Your task to perform on an android device: install app "Microsoft Authenticator" Image 0: 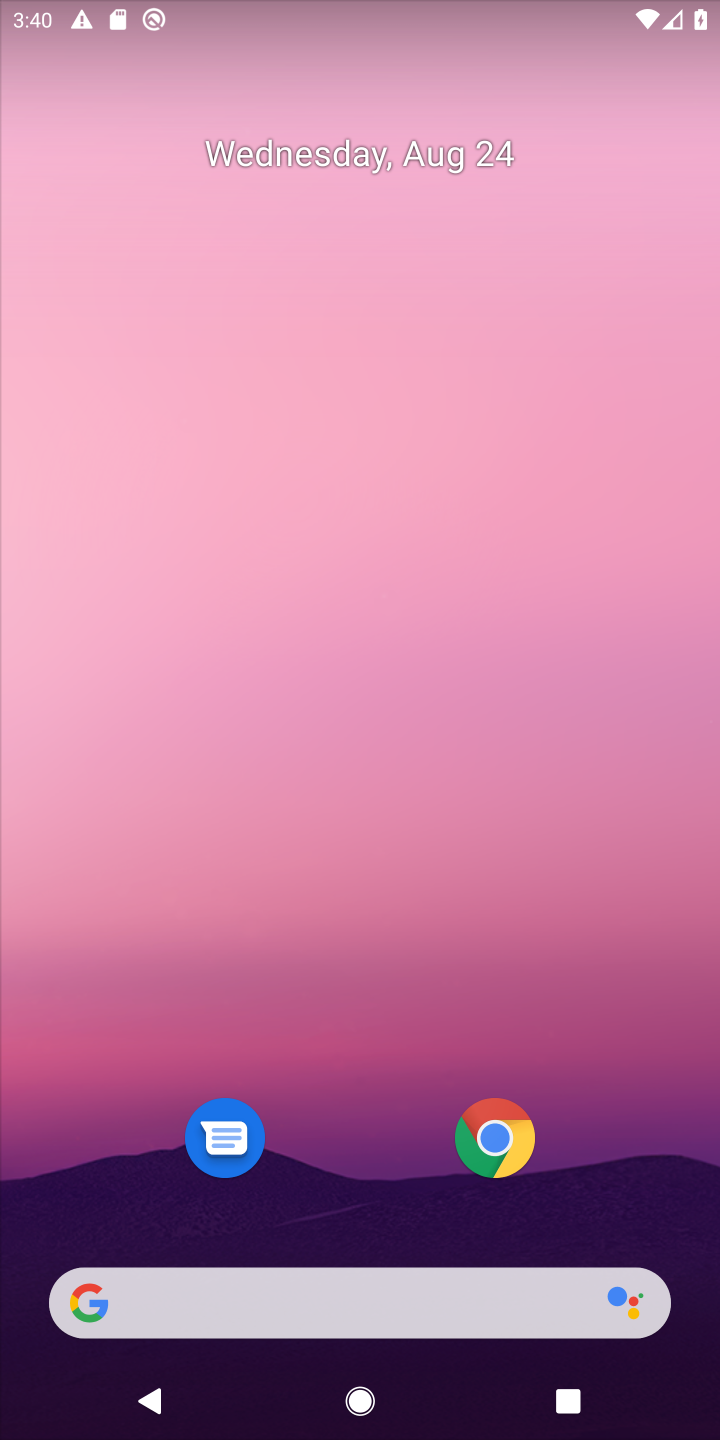
Step 0: drag from (353, 1247) to (347, 202)
Your task to perform on an android device: install app "Microsoft Authenticator" Image 1: 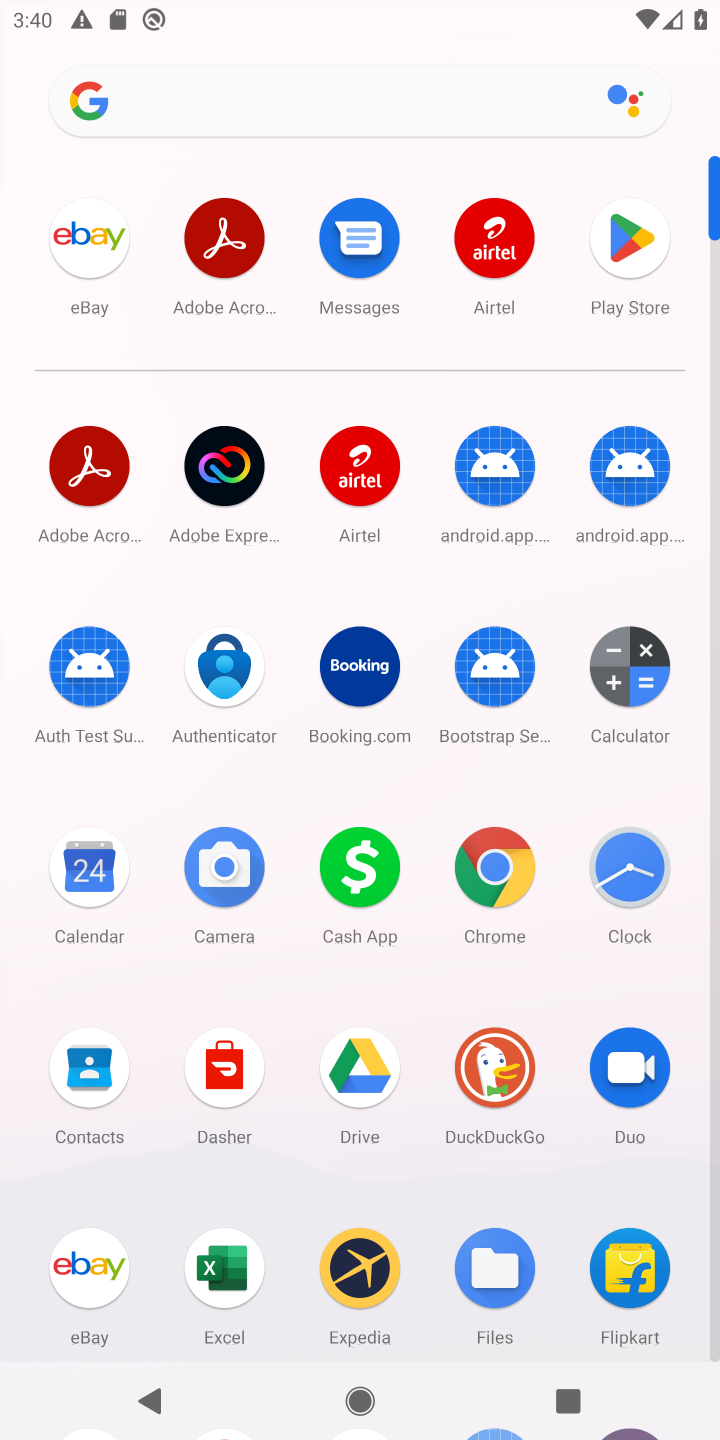
Step 1: click (631, 238)
Your task to perform on an android device: install app "Microsoft Authenticator" Image 2: 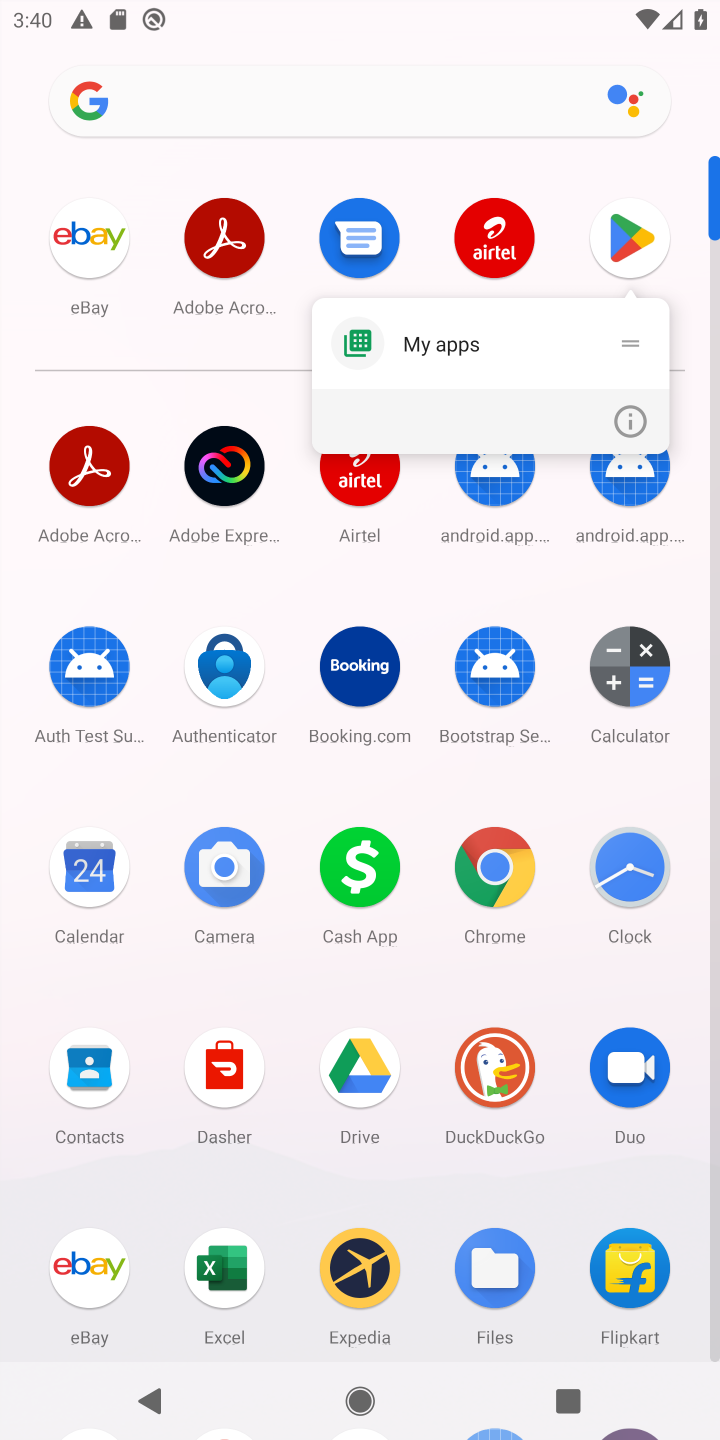
Step 2: click (631, 238)
Your task to perform on an android device: install app "Microsoft Authenticator" Image 3: 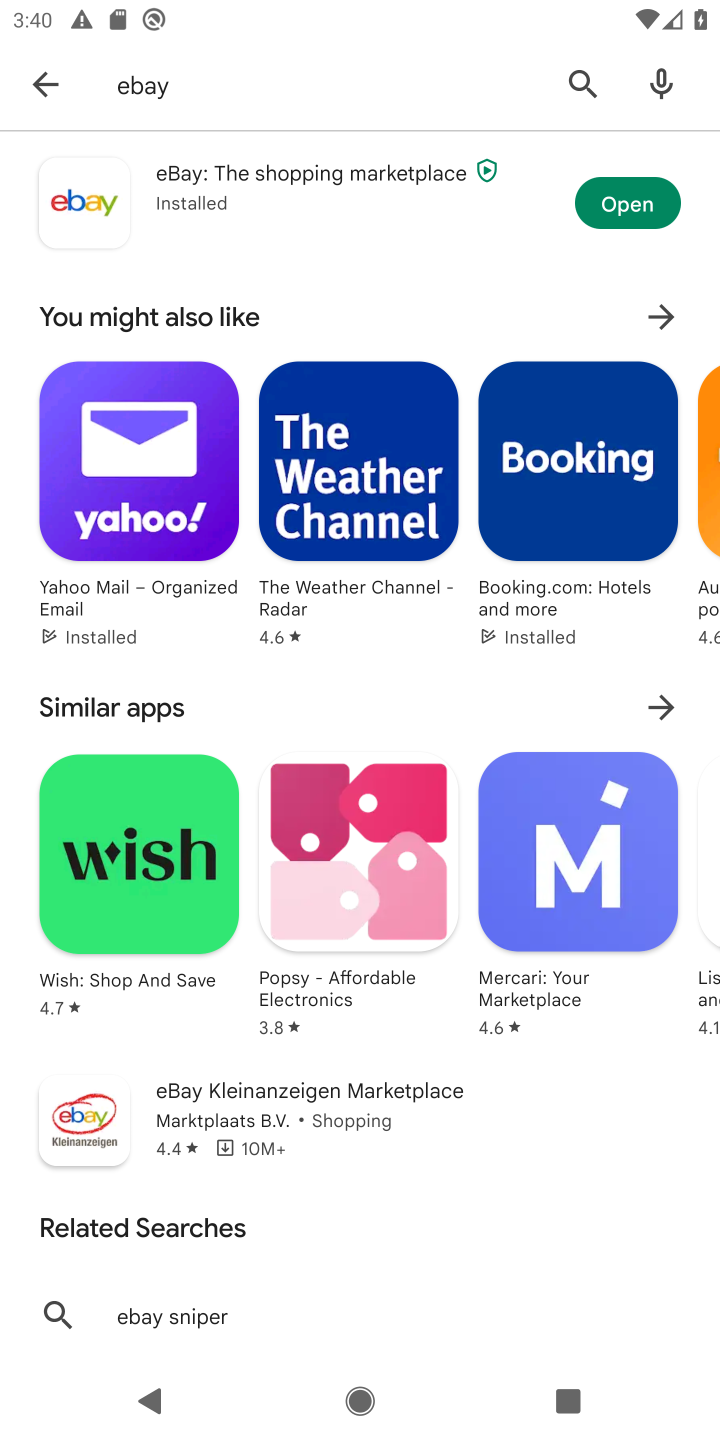
Step 3: click (577, 82)
Your task to perform on an android device: install app "Microsoft Authenticator" Image 4: 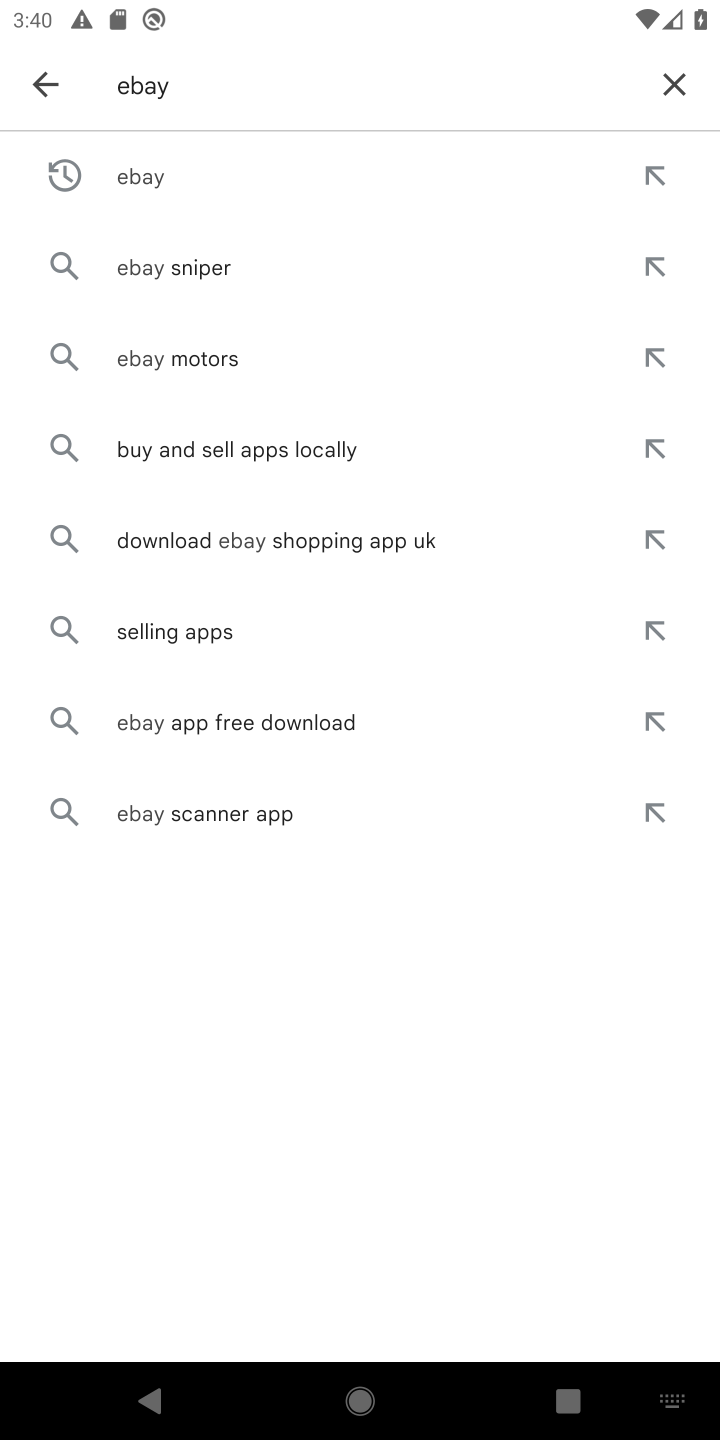
Step 4: click (673, 81)
Your task to perform on an android device: install app "Microsoft Authenticator" Image 5: 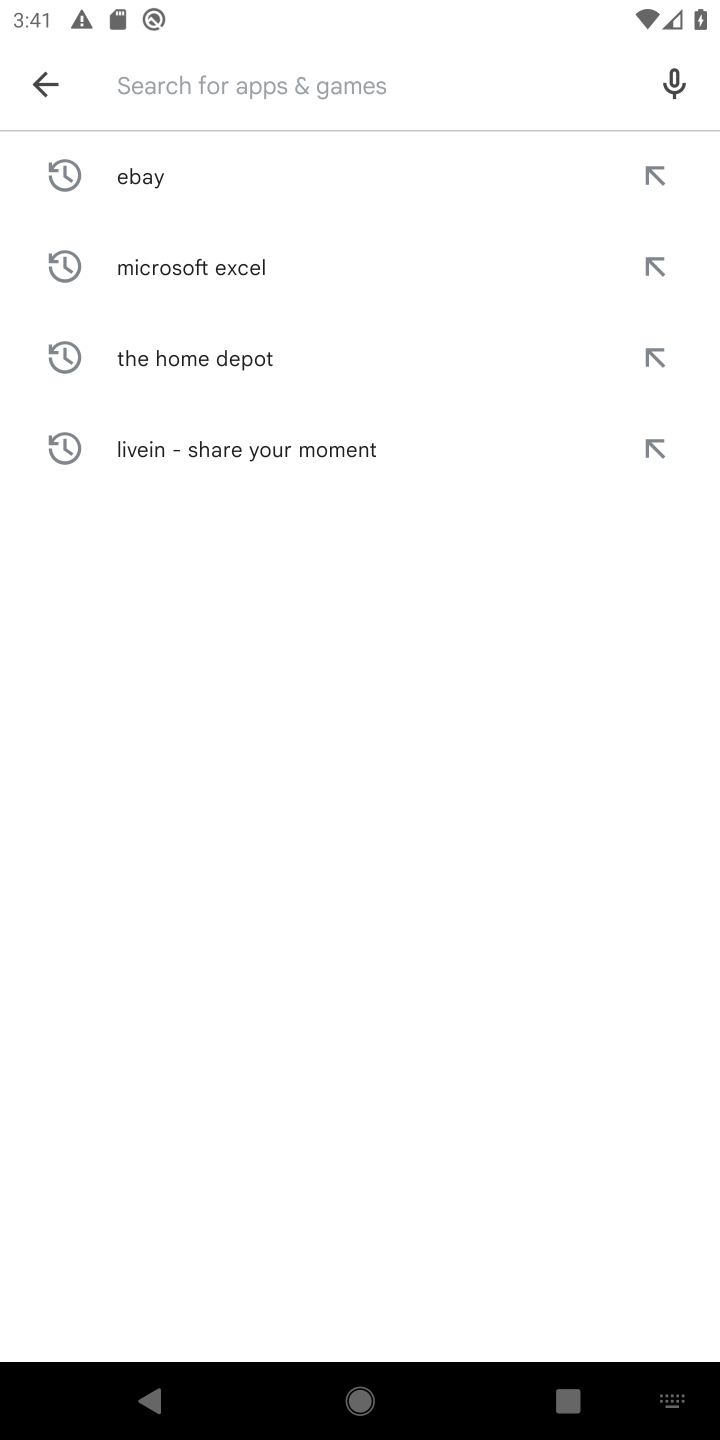
Step 5: type "Microsoft Authenticato"
Your task to perform on an android device: install app "Microsoft Authenticator" Image 6: 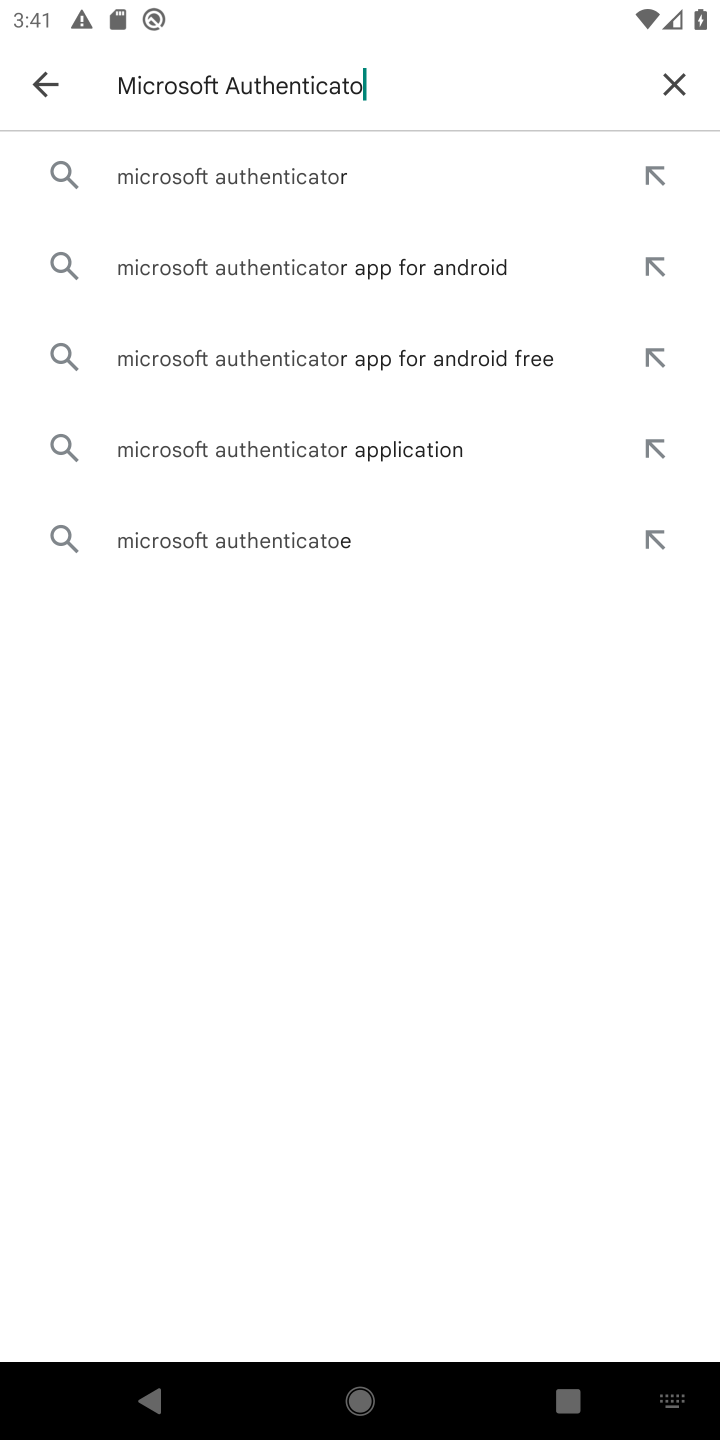
Step 6: click (257, 173)
Your task to perform on an android device: install app "Microsoft Authenticator" Image 7: 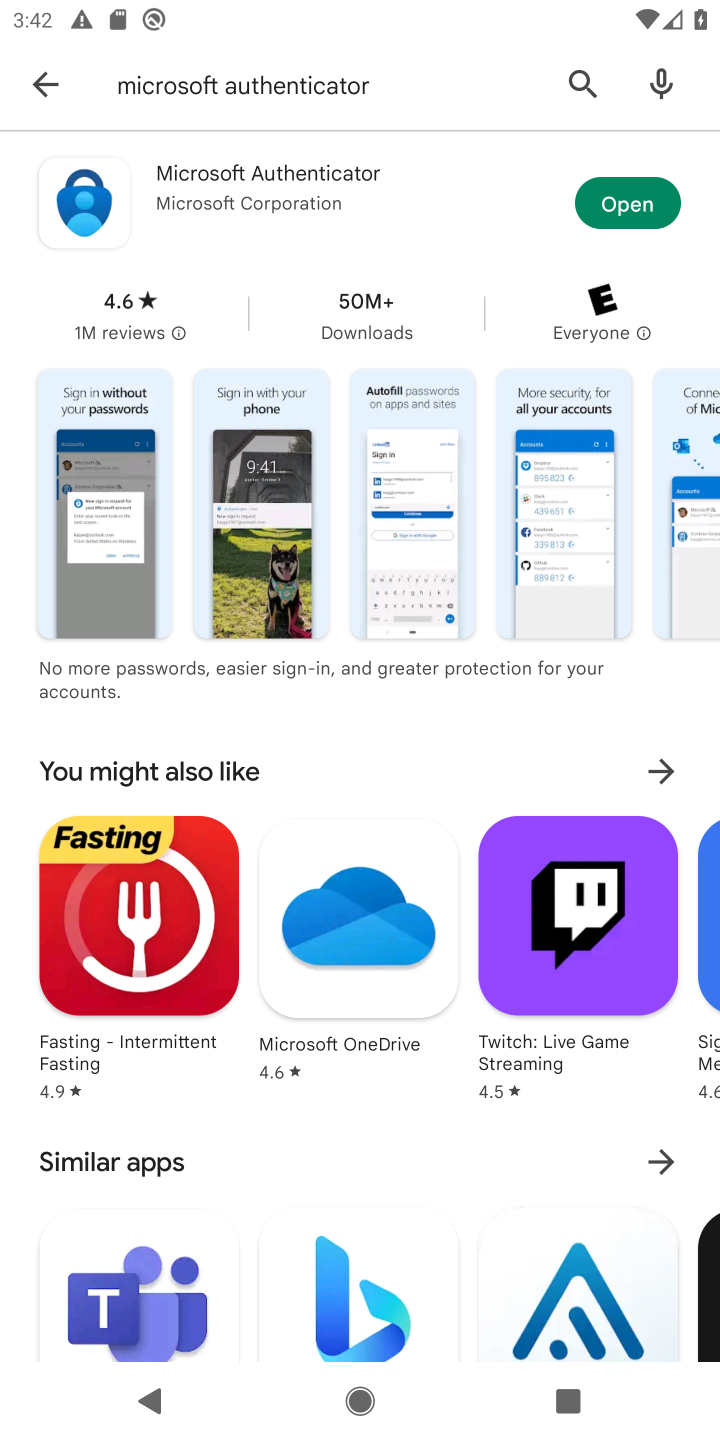
Step 7: task complete